Your task to perform on an android device: Open Yahoo.com Image 0: 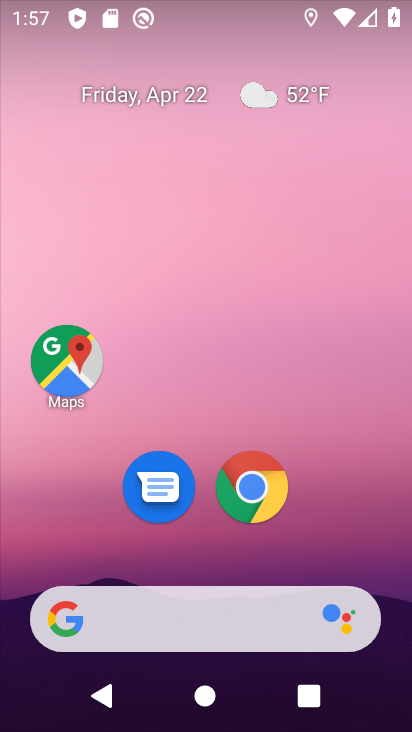
Step 0: click (249, 471)
Your task to perform on an android device: Open Yahoo.com Image 1: 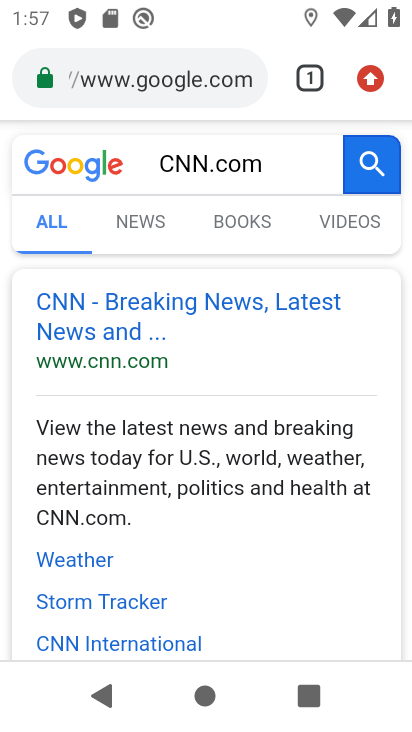
Step 1: click (188, 81)
Your task to perform on an android device: Open Yahoo.com Image 2: 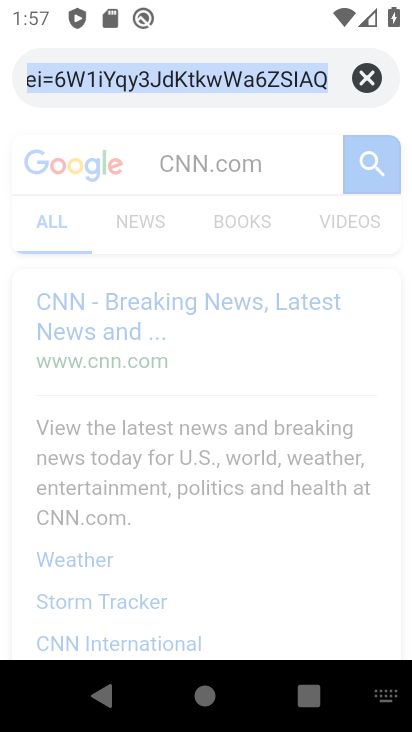
Step 2: type "yahoo.com"
Your task to perform on an android device: Open Yahoo.com Image 3: 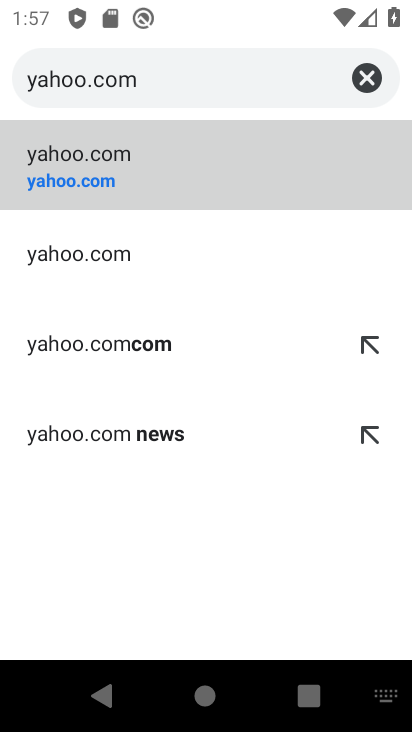
Step 3: click (108, 171)
Your task to perform on an android device: Open Yahoo.com Image 4: 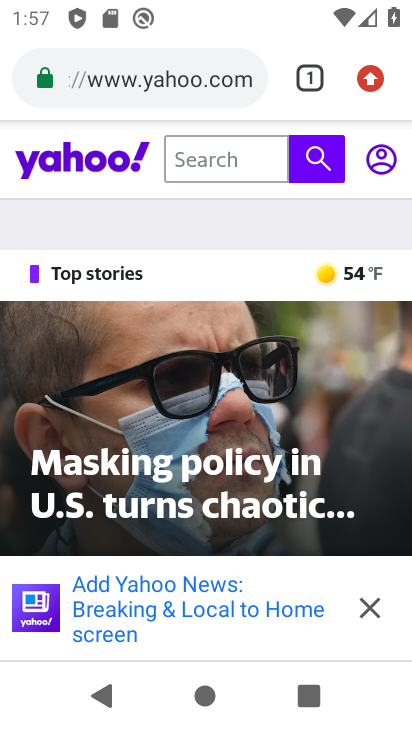
Step 4: task complete